Your task to perform on an android device: Go to network settings Image 0: 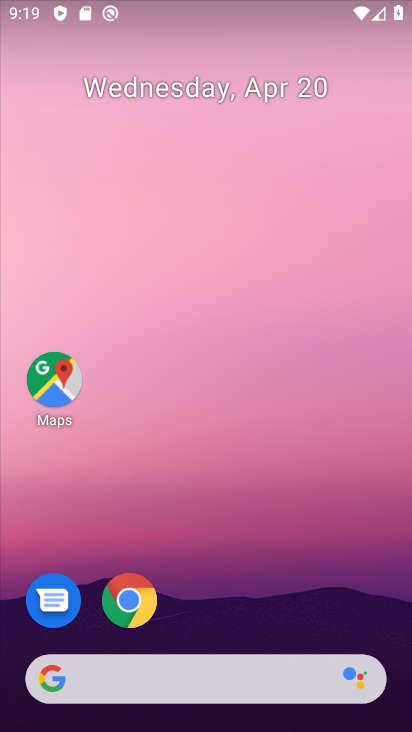
Step 0: drag from (223, 639) to (163, 89)
Your task to perform on an android device: Go to network settings Image 1: 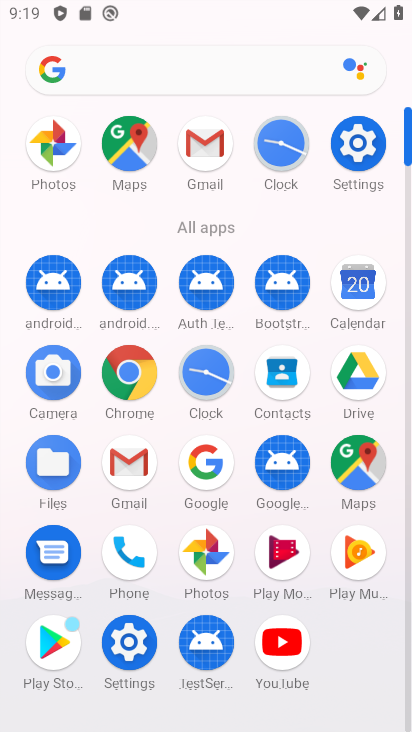
Step 1: click (350, 161)
Your task to perform on an android device: Go to network settings Image 2: 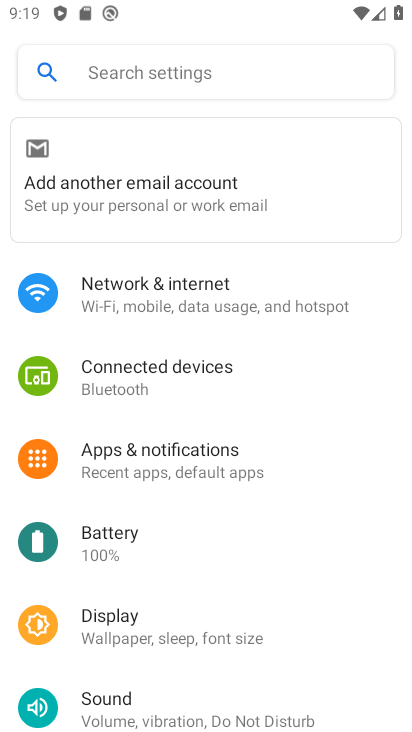
Step 2: click (171, 293)
Your task to perform on an android device: Go to network settings Image 3: 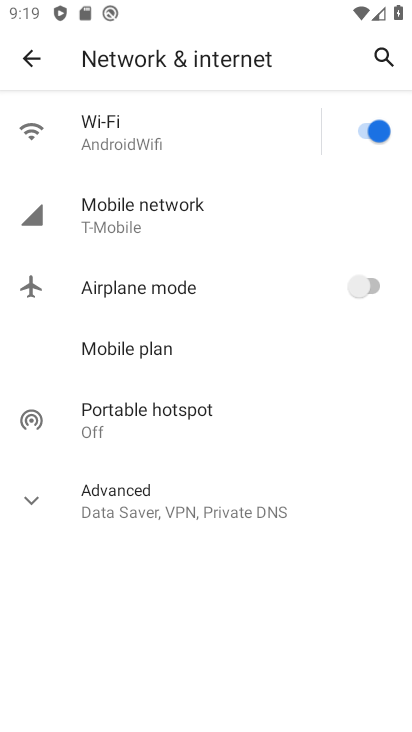
Step 3: click (104, 222)
Your task to perform on an android device: Go to network settings Image 4: 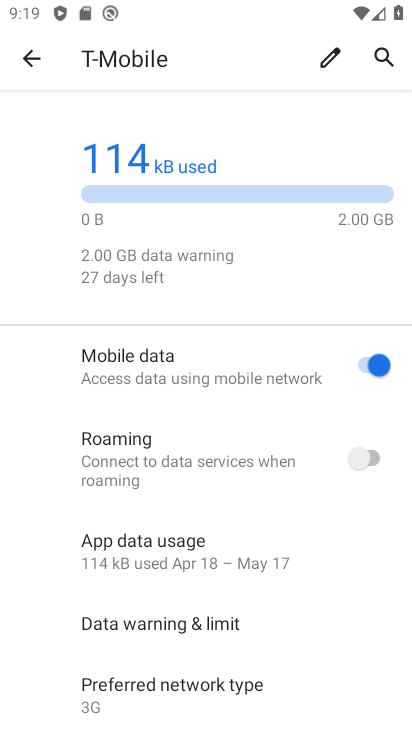
Step 4: drag from (240, 560) to (220, 175)
Your task to perform on an android device: Go to network settings Image 5: 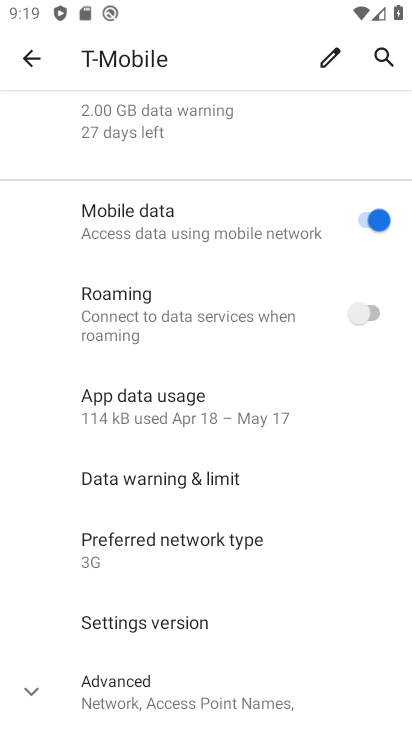
Step 5: click (148, 675)
Your task to perform on an android device: Go to network settings Image 6: 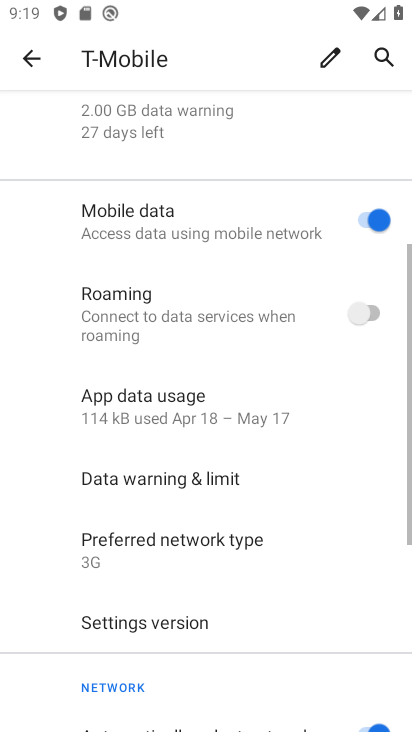
Step 6: task complete